Your task to perform on an android device: Open the Play Movies app and select the watchlist tab. Image 0: 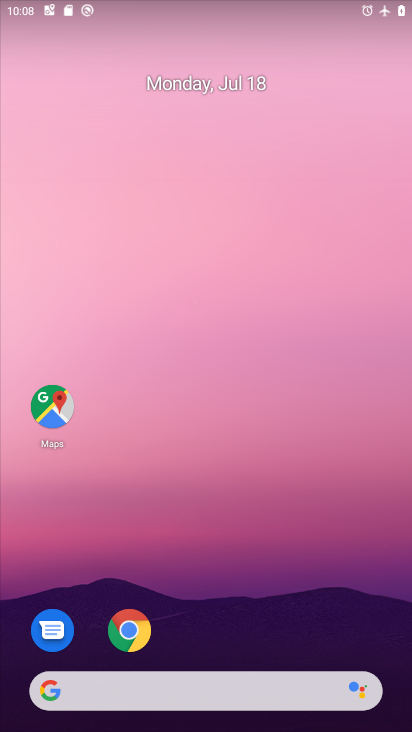
Step 0: drag from (202, 626) to (176, 165)
Your task to perform on an android device: Open the Play Movies app and select the watchlist tab. Image 1: 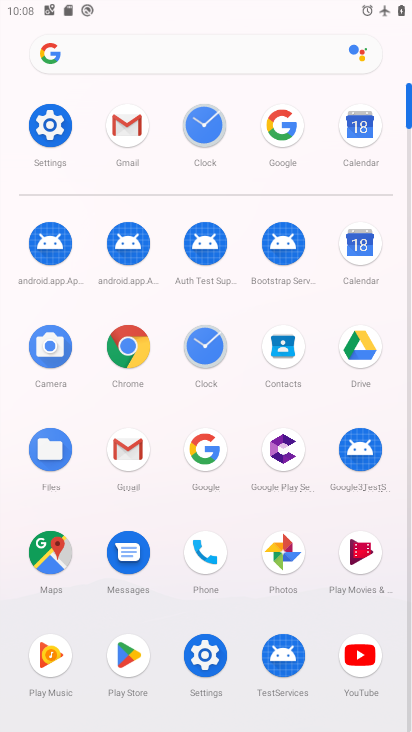
Step 1: click (357, 569)
Your task to perform on an android device: Open the Play Movies app and select the watchlist tab. Image 2: 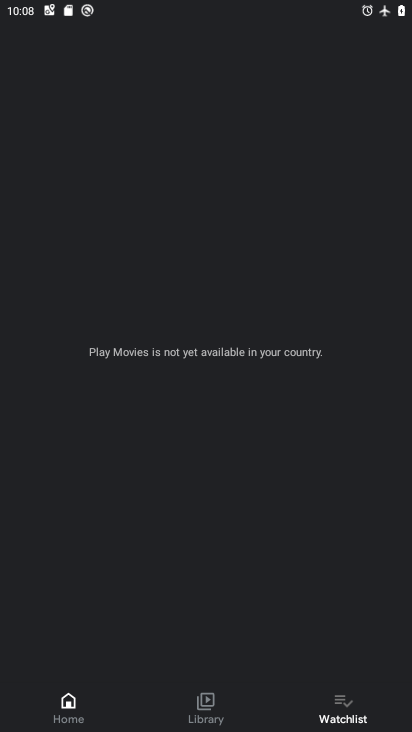
Step 2: click (341, 697)
Your task to perform on an android device: Open the Play Movies app and select the watchlist tab. Image 3: 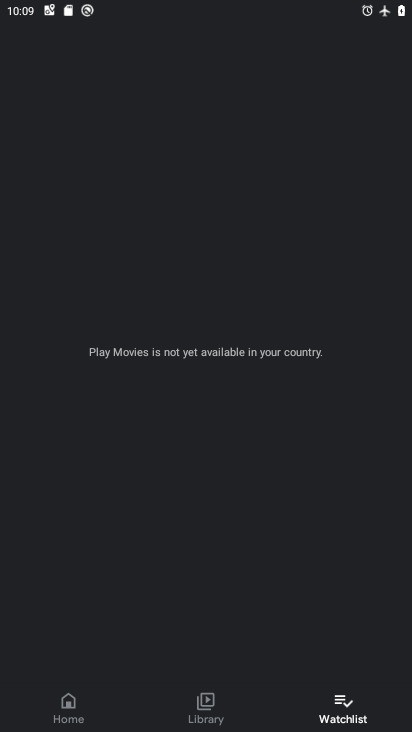
Step 3: task complete